Your task to perform on an android device: open app "Google Play services" Image 0: 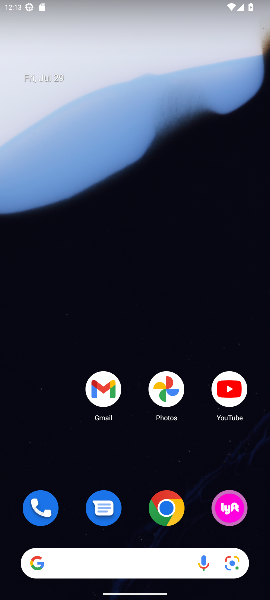
Step 0: drag from (157, 561) to (110, 93)
Your task to perform on an android device: open app "Google Play services" Image 1: 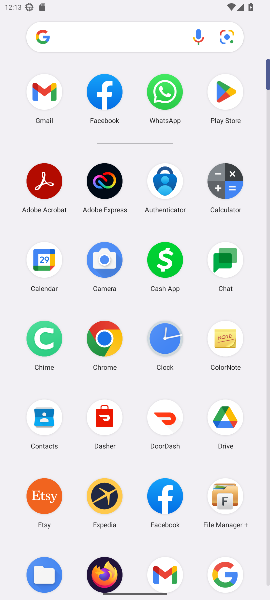
Step 1: click (154, 40)
Your task to perform on an android device: open app "Google Play services" Image 2: 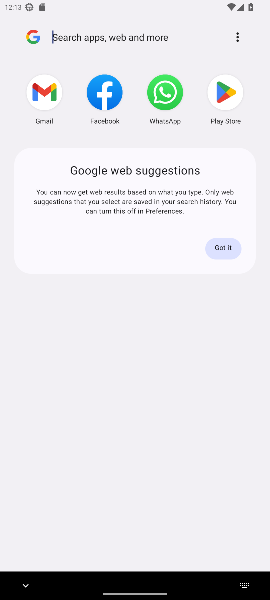
Step 2: click (227, 84)
Your task to perform on an android device: open app "Google Play services" Image 3: 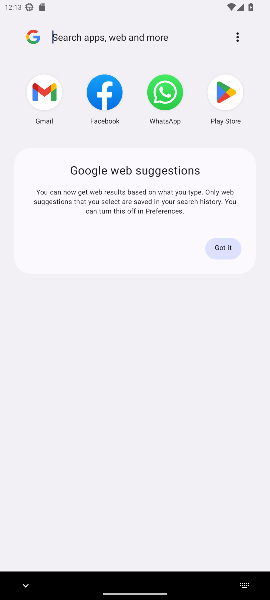
Step 3: click (227, 84)
Your task to perform on an android device: open app "Google Play services" Image 4: 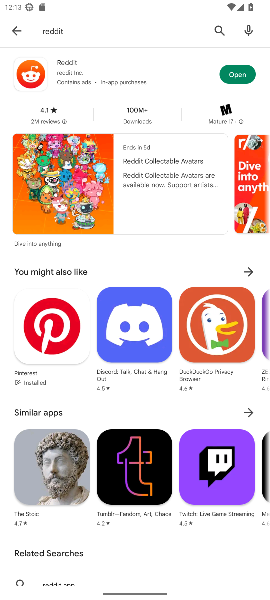
Step 4: click (218, 32)
Your task to perform on an android device: open app "Google Play services" Image 5: 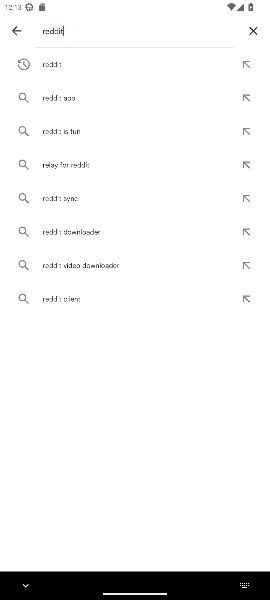
Step 5: type "google play services"
Your task to perform on an android device: open app "Google Play services" Image 6: 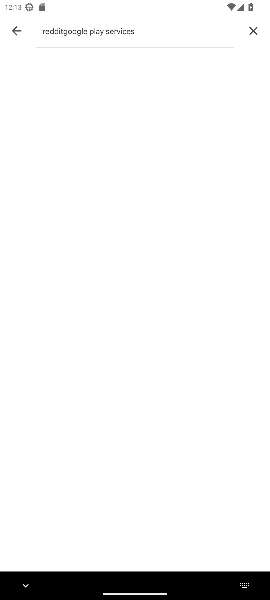
Step 6: click (256, 31)
Your task to perform on an android device: open app "Google Play services" Image 7: 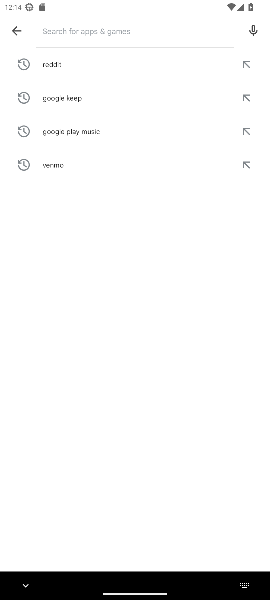
Step 7: type "google play services"
Your task to perform on an android device: open app "Google Play services" Image 8: 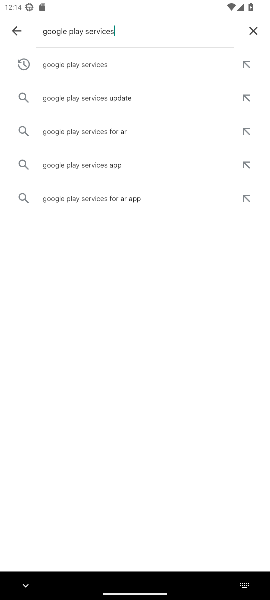
Step 8: click (82, 66)
Your task to perform on an android device: open app "Google Play services" Image 9: 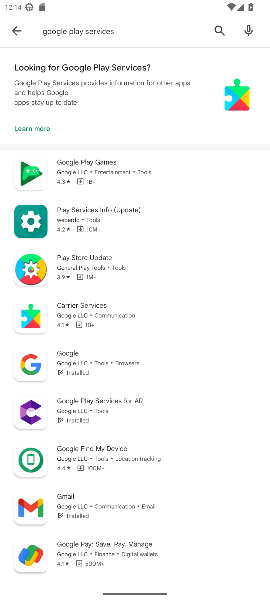
Step 9: click (93, 175)
Your task to perform on an android device: open app "Google Play services" Image 10: 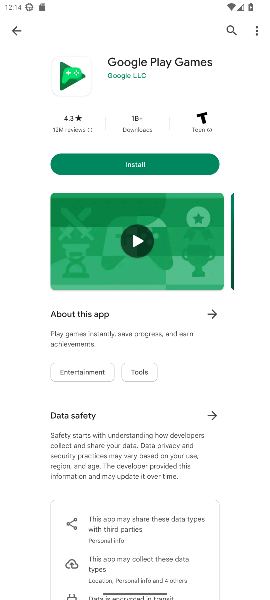
Step 10: task complete